Your task to perform on an android device: see tabs open on other devices in the chrome app Image 0: 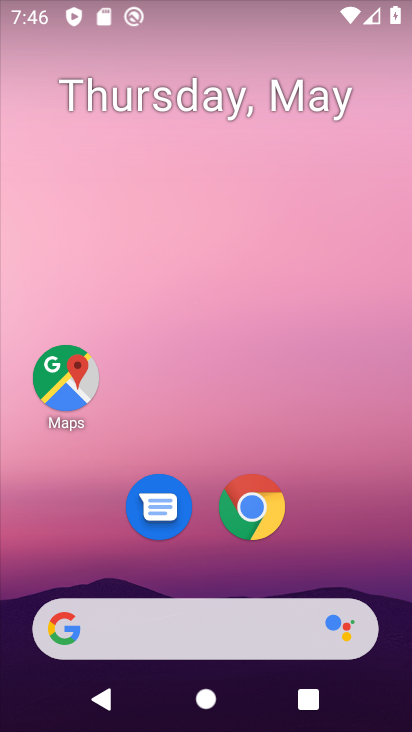
Step 0: drag from (373, 555) to (283, 242)
Your task to perform on an android device: see tabs open on other devices in the chrome app Image 1: 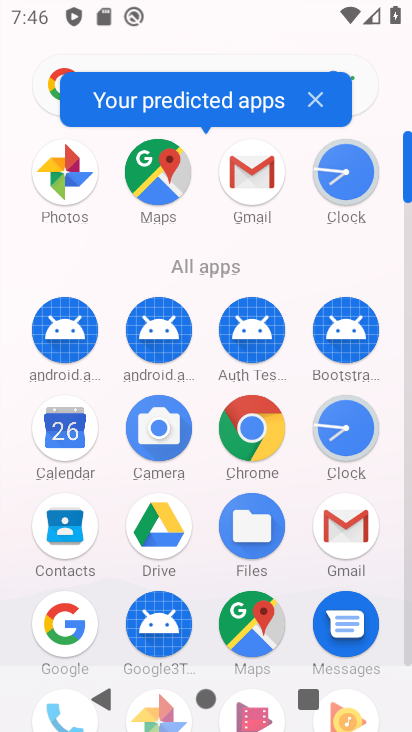
Step 1: click (245, 433)
Your task to perform on an android device: see tabs open on other devices in the chrome app Image 2: 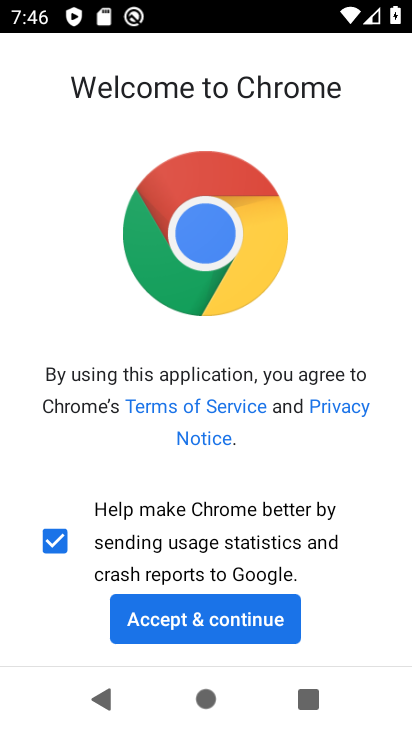
Step 2: click (233, 629)
Your task to perform on an android device: see tabs open on other devices in the chrome app Image 3: 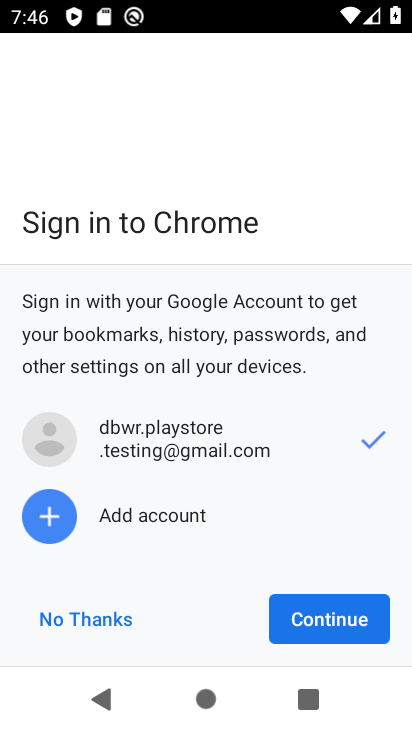
Step 3: click (290, 627)
Your task to perform on an android device: see tabs open on other devices in the chrome app Image 4: 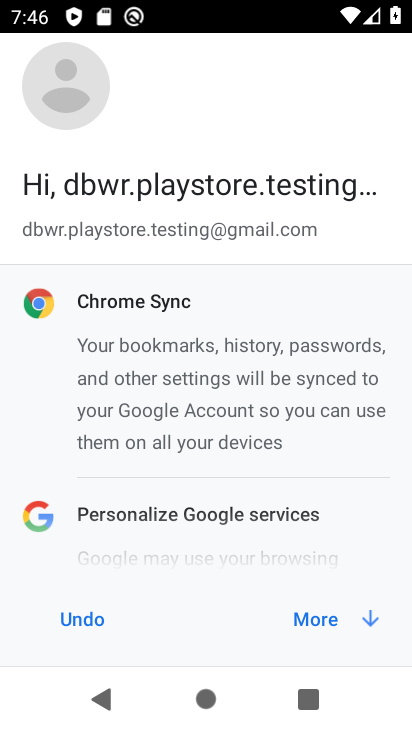
Step 4: click (290, 627)
Your task to perform on an android device: see tabs open on other devices in the chrome app Image 5: 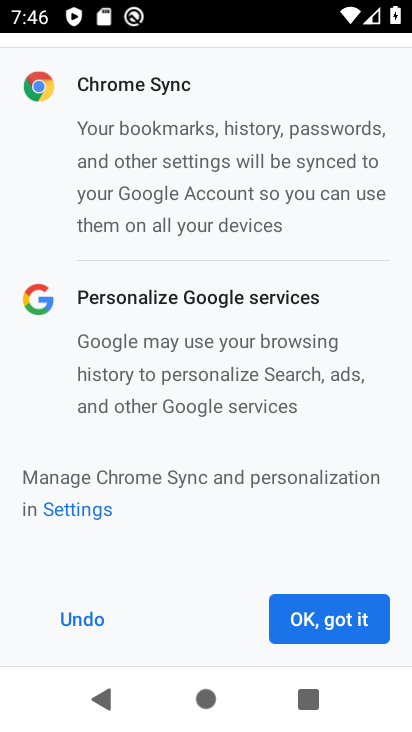
Step 5: click (300, 625)
Your task to perform on an android device: see tabs open on other devices in the chrome app Image 6: 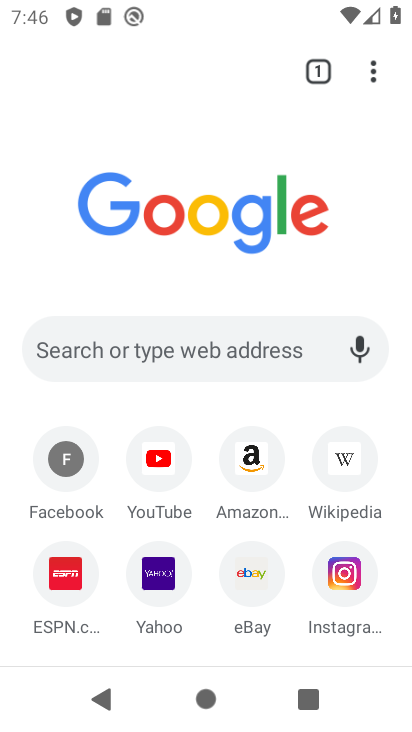
Step 6: click (369, 78)
Your task to perform on an android device: see tabs open on other devices in the chrome app Image 7: 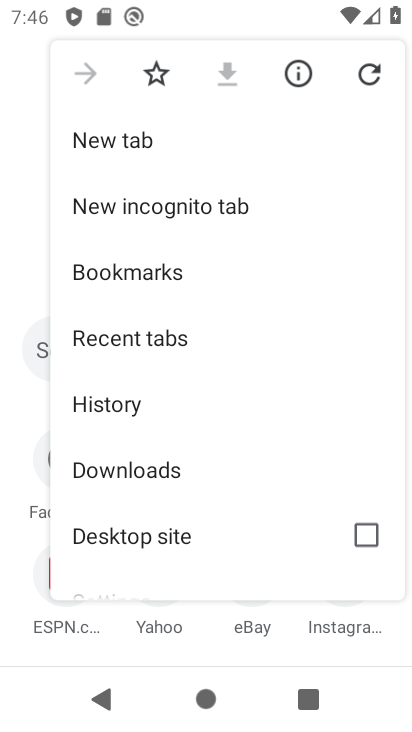
Step 7: click (143, 349)
Your task to perform on an android device: see tabs open on other devices in the chrome app Image 8: 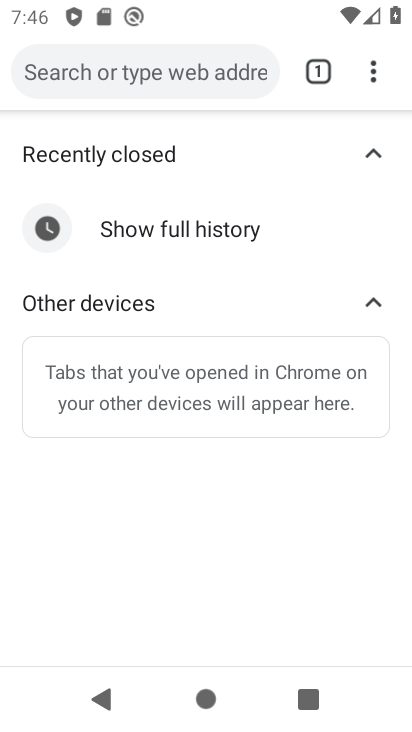
Step 8: task complete